Your task to perform on an android device: find snoozed emails in the gmail app Image 0: 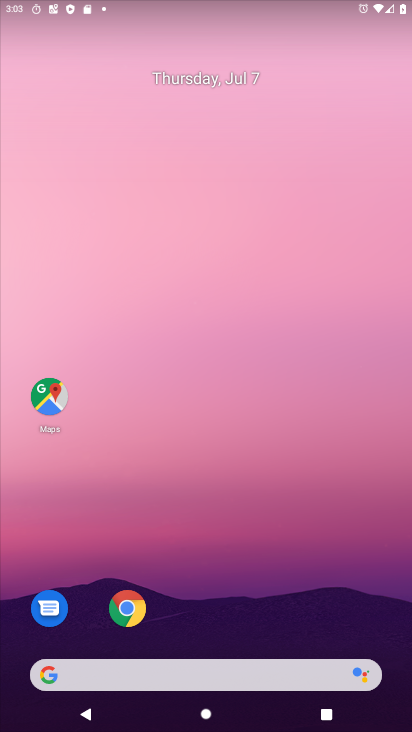
Step 0: drag from (247, 702) to (233, 113)
Your task to perform on an android device: find snoozed emails in the gmail app Image 1: 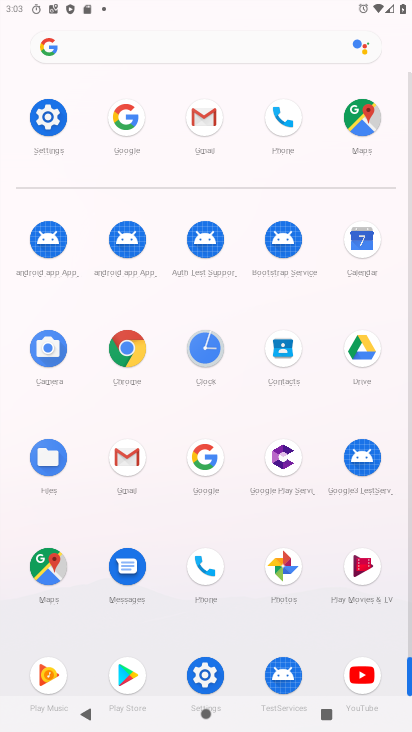
Step 1: click (124, 451)
Your task to perform on an android device: find snoozed emails in the gmail app Image 2: 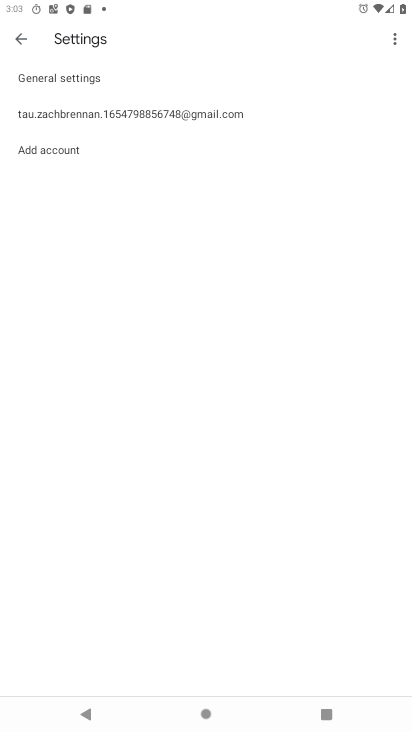
Step 2: click (23, 37)
Your task to perform on an android device: find snoozed emails in the gmail app Image 3: 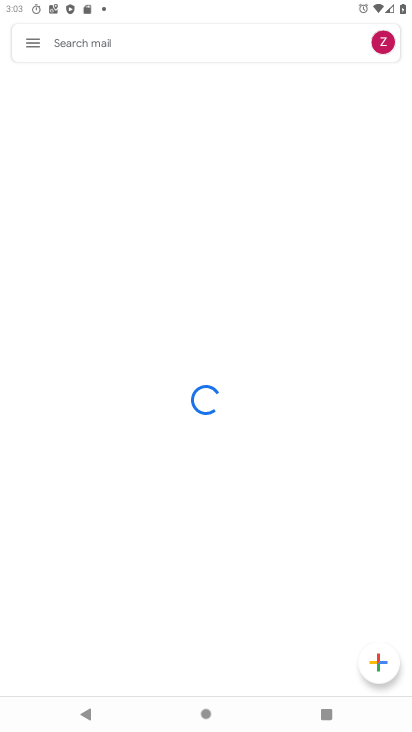
Step 3: click (30, 41)
Your task to perform on an android device: find snoozed emails in the gmail app Image 4: 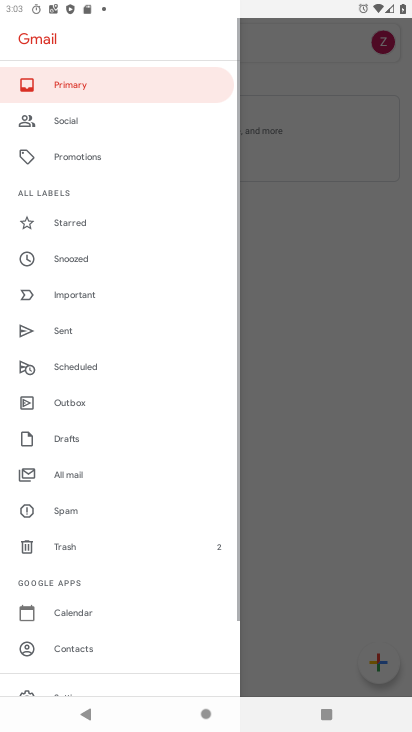
Step 4: click (71, 249)
Your task to perform on an android device: find snoozed emails in the gmail app Image 5: 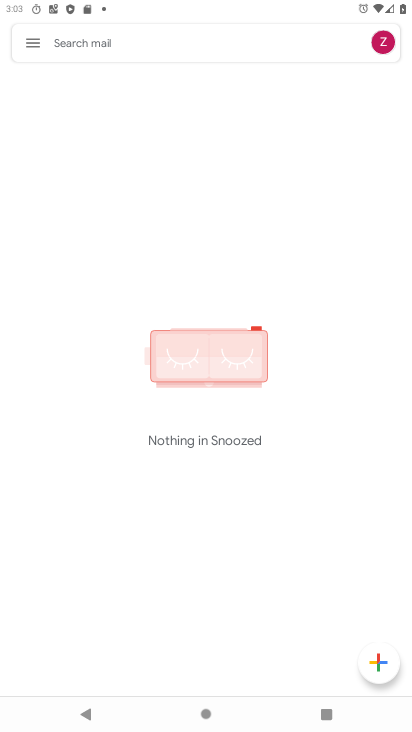
Step 5: task complete